Your task to perform on an android device: install app "Yahoo Mail" Image 0: 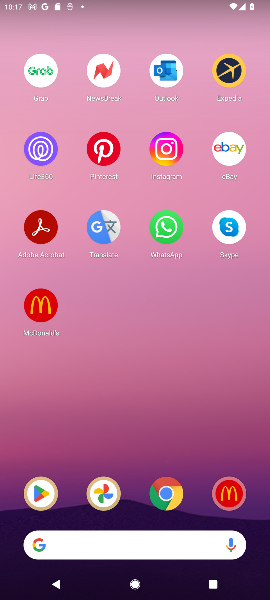
Step 0: click (33, 480)
Your task to perform on an android device: install app "Yahoo Mail" Image 1: 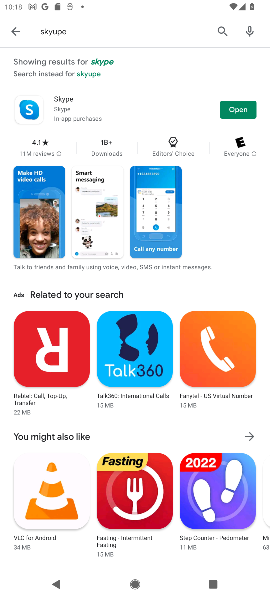
Step 1: click (225, 34)
Your task to perform on an android device: install app "Yahoo Mail" Image 2: 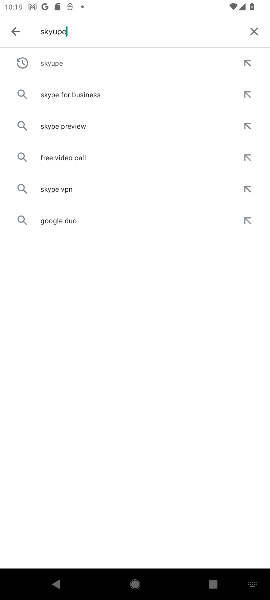
Step 2: click (257, 34)
Your task to perform on an android device: install app "Yahoo Mail" Image 3: 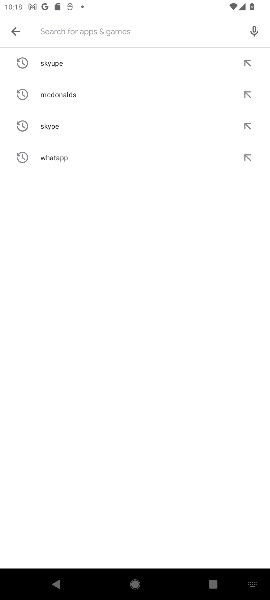
Step 3: type "yahoomail.com"
Your task to perform on an android device: install app "Yahoo Mail" Image 4: 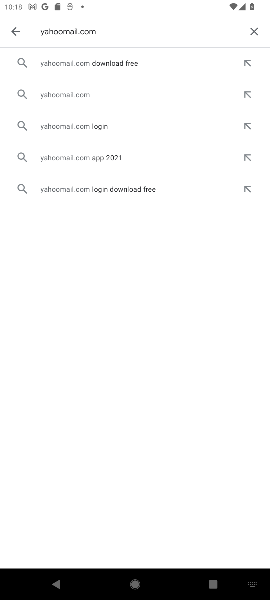
Step 4: click (128, 66)
Your task to perform on an android device: install app "Yahoo Mail" Image 5: 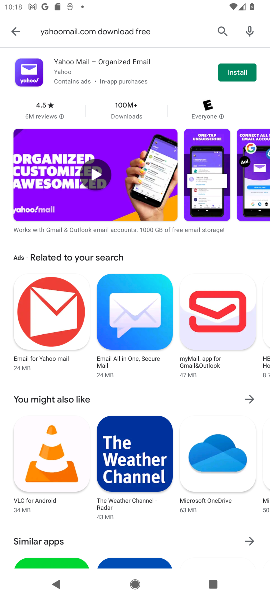
Step 5: click (224, 74)
Your task to perform on an android device: install app "Yahoo Mail" Image 6: 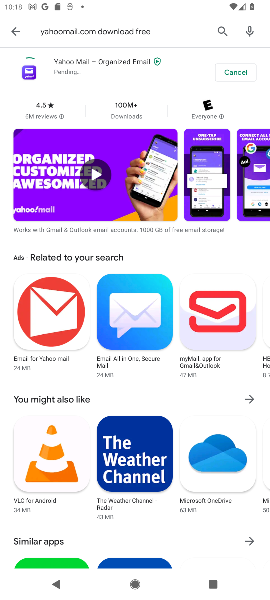
Step 6: task complete